Your task to perform on an android device: Open Chrome and go to settings Image 0: 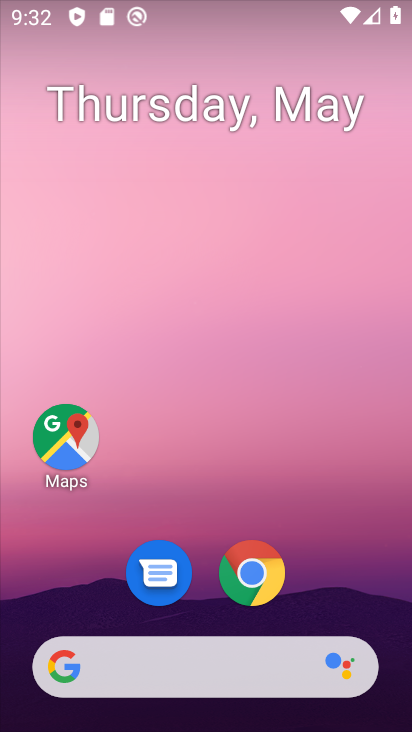
Step 0: click (243, 593)
Your task to perform on an android device: Open Chrome and go to settings Image 1: 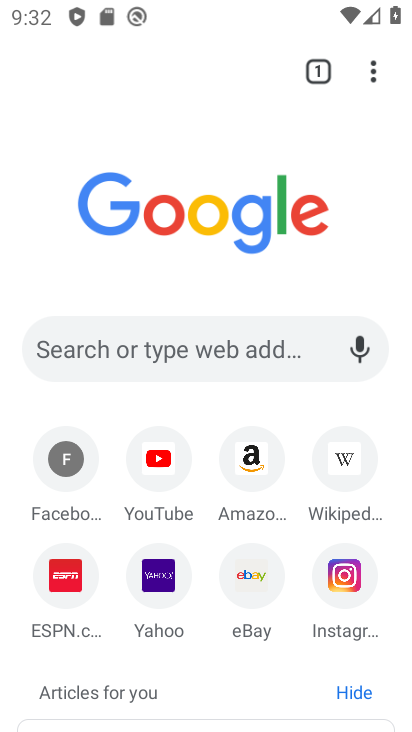
Step 1: click (366, 80)
Your task to perform on an android device: Open Chrome and go to settings Image 2: 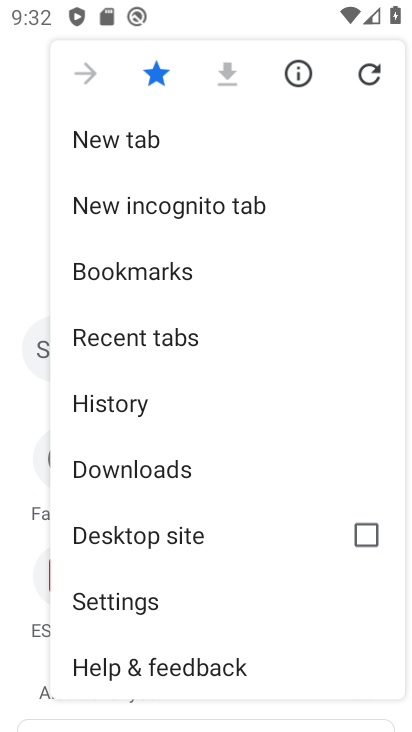
Step 2: click (202, 586)
Your task to perform on an android device: Open Chrome and go to settings Image 3: 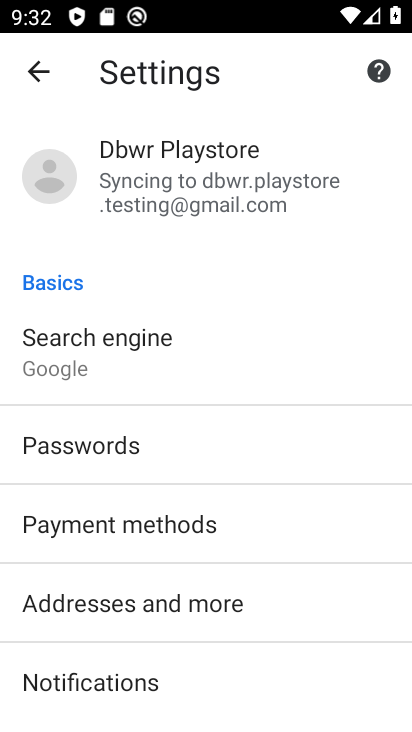
Step 3: task complete